Your task to perform on an android device: Show me popular games on the Play Store Image 0: 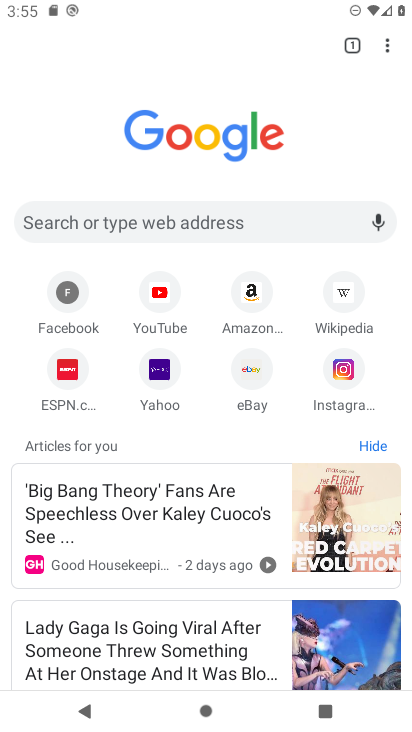
Step 0: press back button
Your task to perform on an android device: Show me popular games on the Play Store Image 1: 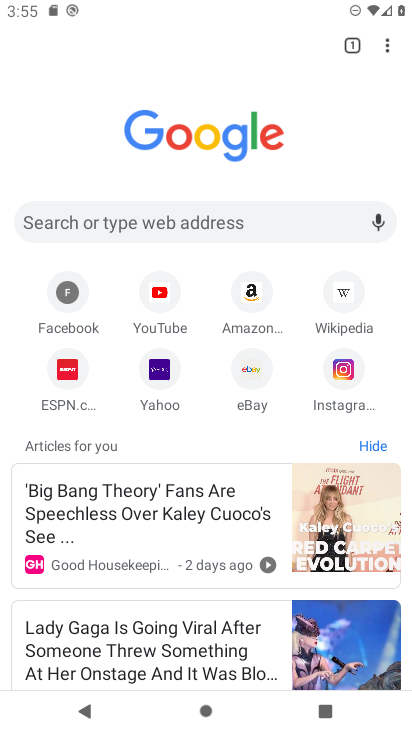
Step 1: press back button
Your task to perform on an android device: Show me popular games on the Play Store Image 2: 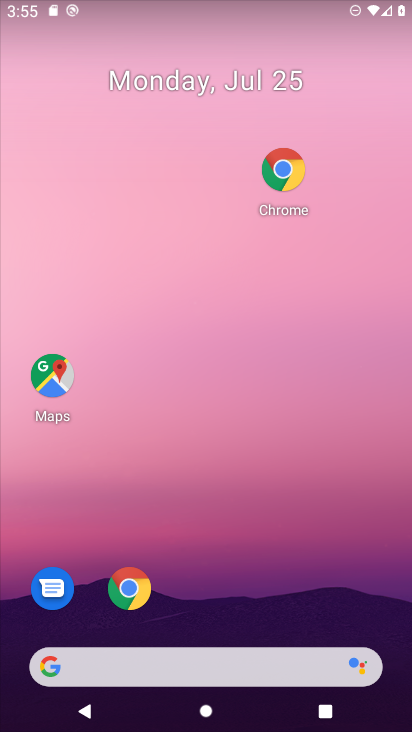
Step 2: drag from (217, 553) to (169, 139)
Your task to perform on an android device: Show me popular games on the Play Store Image 3: 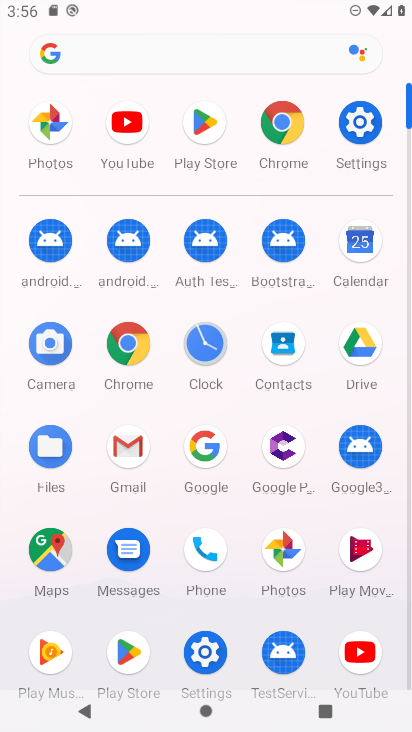
Step 3: click (130, 648)
Your task to perform on an android device: Show me popular games on the Play Store Image 4: 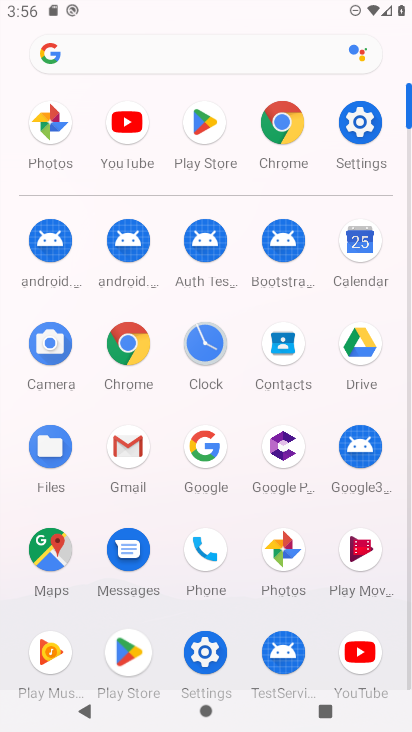
Step 4: click (132, 649)
Your task to perform on an android device: Show me popular games on the Play Store Image 5: 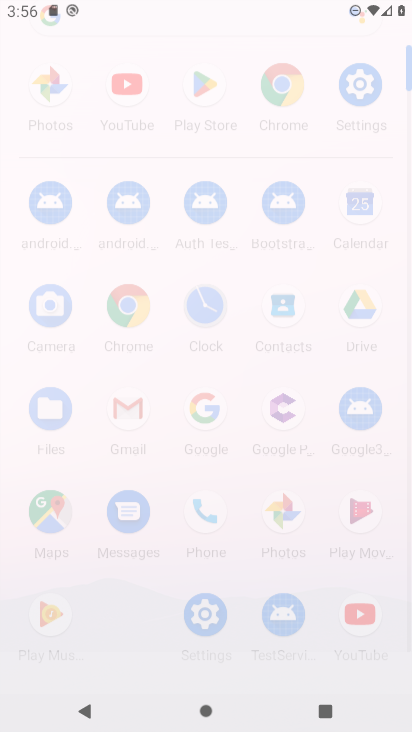
Step 5: click (137, 656)
Your task to perform on an android device: Show me popular games on the Play Store Image 6: 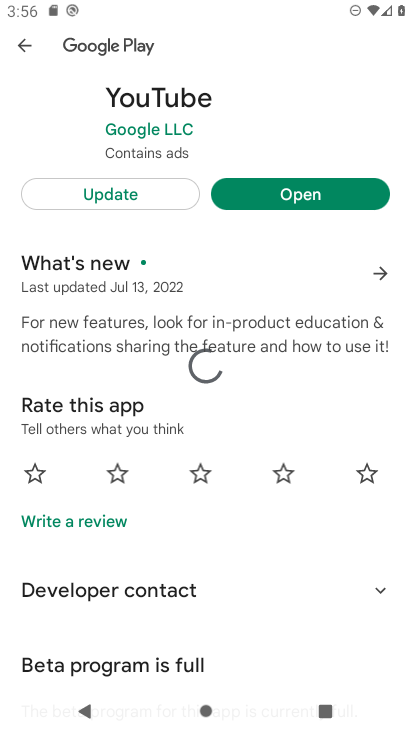
Step 6: click (139, 657)
Your task to perform on an android device: Show me popular games on the Play Store Image 7: 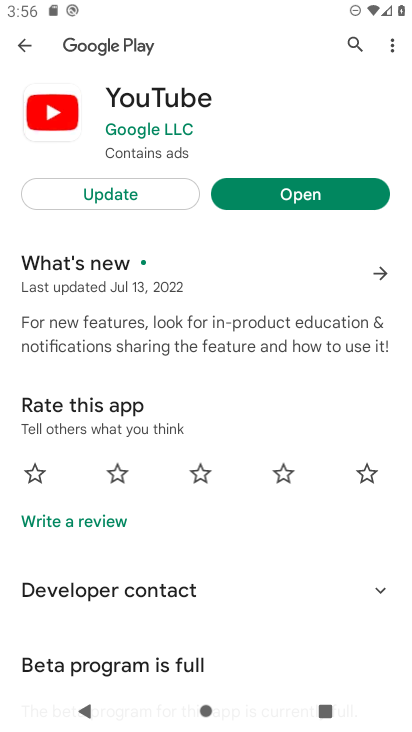
Step 7: click (174, 204)
Your task to perform on an android device: Show me popular games on the Play Store Image 8: 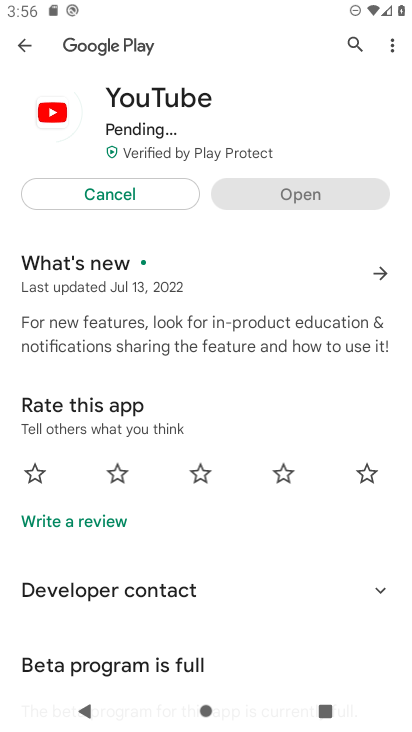
Step 8: click (278, 196)
Your task to perform on an android device: Show me popular games on the Play Store Image 9: 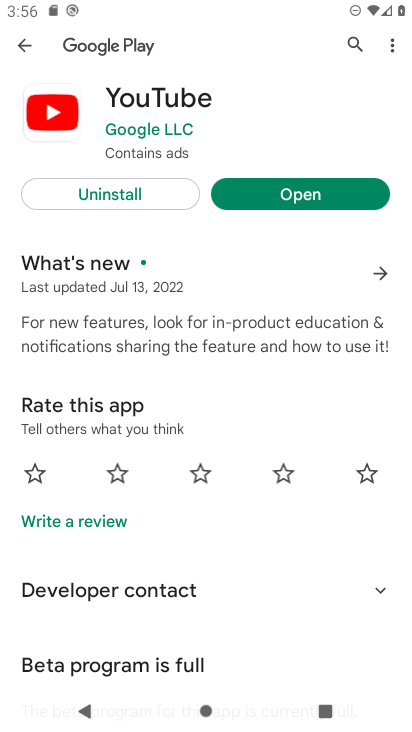
Step 9: press back button
Your task to perform on an android device: Show me popular games on the Play Store Image 10: 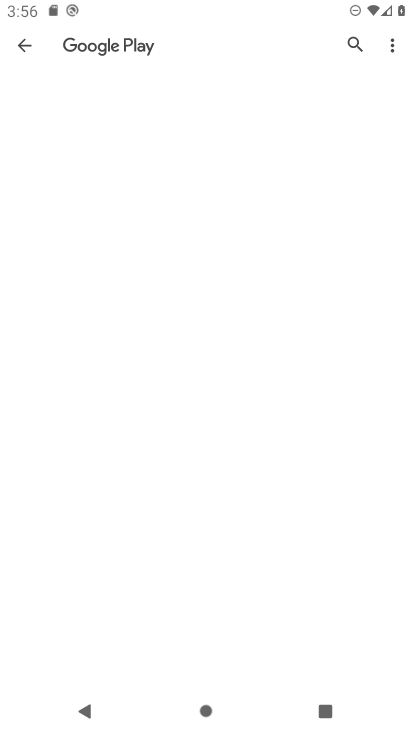
Step 10: press back button
Your task to perform on an android device: Show me popular games on the Play Store Image 11: 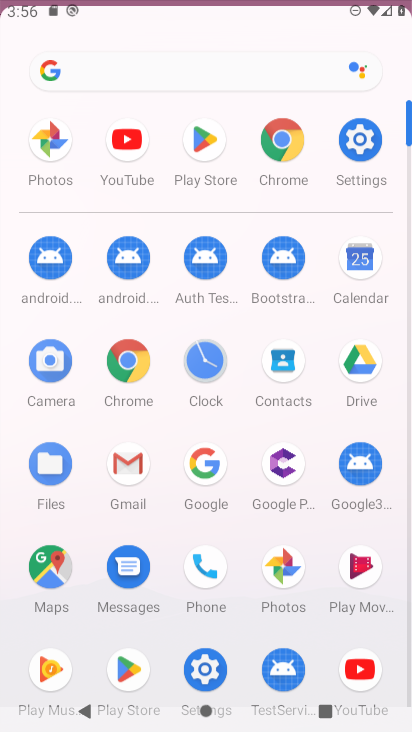
Step 11: press back button
Your task to perform on an android device: Show me popular games on the Play Store Image 12: 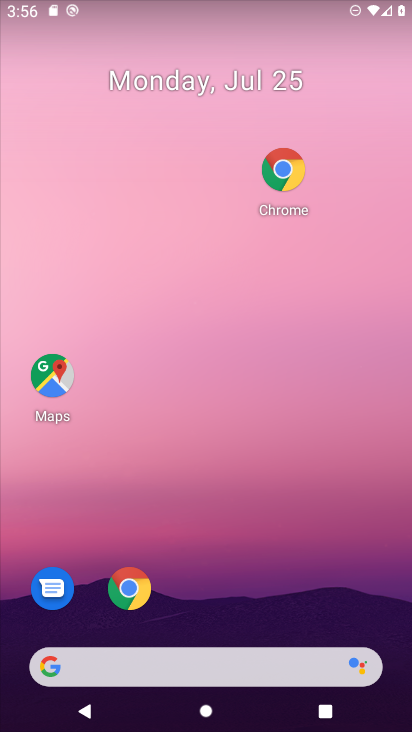
Step 12: drag from (267, 670) to (259, 140)
Your task to perform on an android device: Show me popular games on the Play Store Image 13: 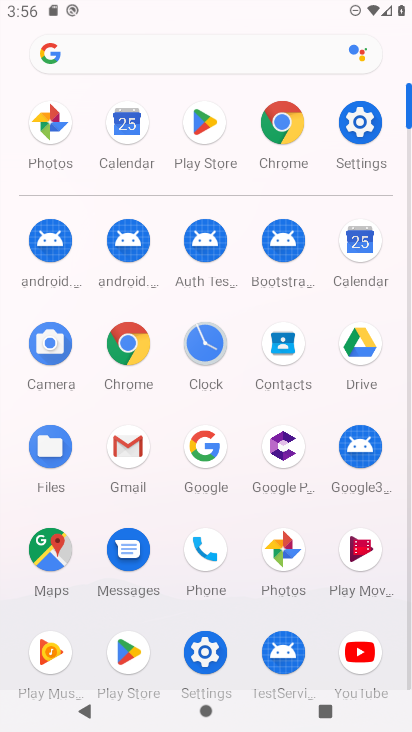
Step 13: click (134, 646)
Your task to perform on an android device: Show me popular games on the Play Store Image 14: 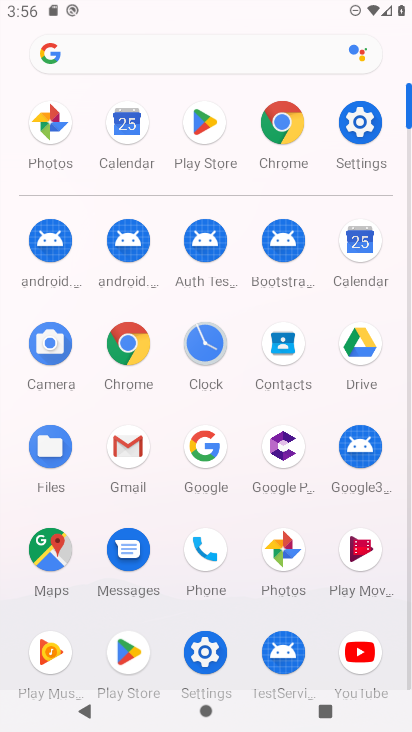
Step 14: click (152, 655)
Your task to perform on an android device: Show me popular games on the Play Store Image 15: 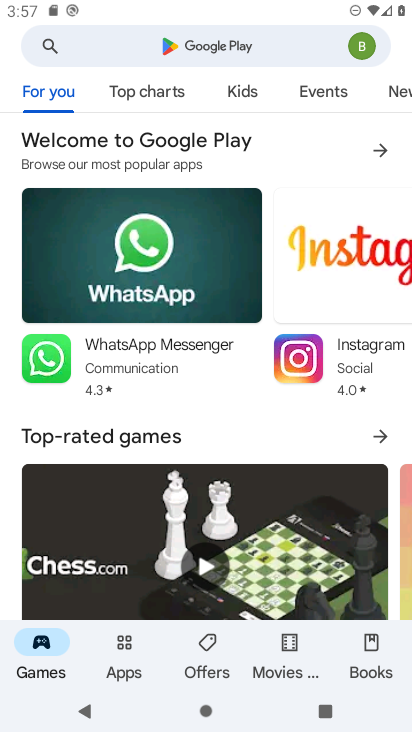
Step 15: click (164, 40)
Your task to perform on an android device: Show me popular games on the Play Store Image 16: 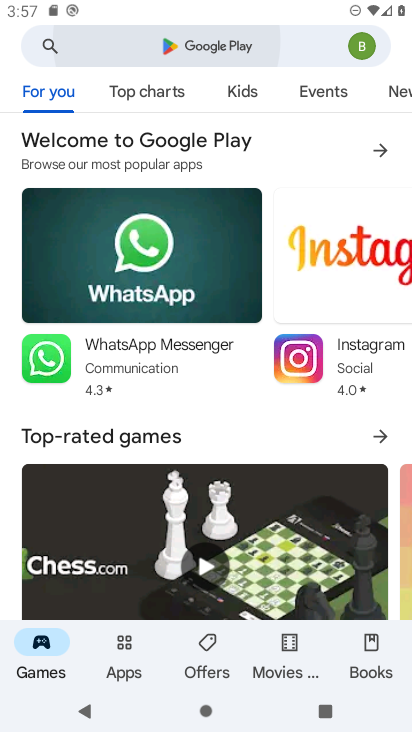
Step 16: click (171, 38)
Your task to perform on an android device: Show me popular games on the Play Store Image 17: 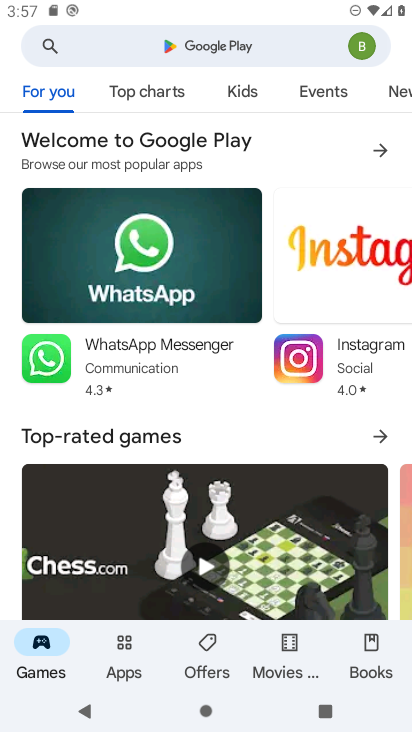
Step 17: click (196, 48)
Your task to perform on an android device: Show me popular games on the Play Store Image 18: 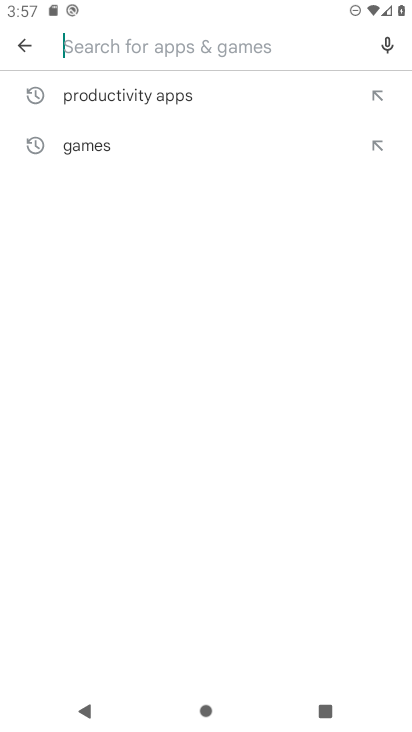
Step 18: click (235, 54)
Your task to perform on an android device: Show me popular games on the Play Store Image 19: 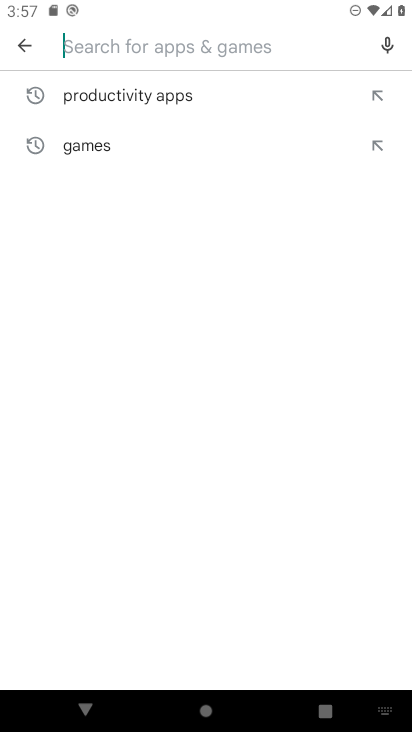
Step 19: type "popular g"
Your task to perform on an android device: Show me popular games on the Play Store Image 20: 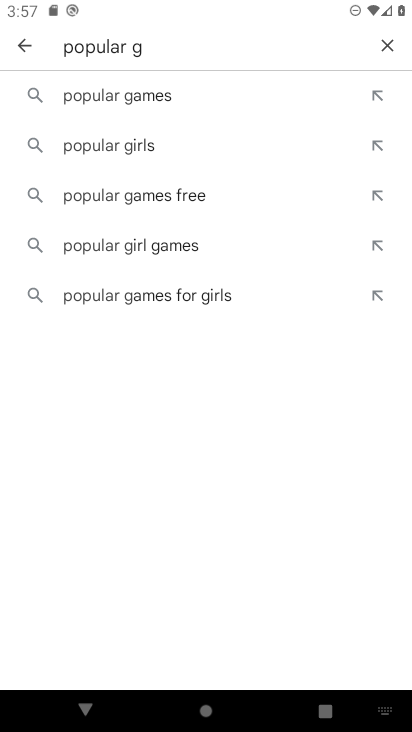
Step 20: click (143, 98)
Your task to perform on an android device: Show me popular games on the Play Store Image 21: 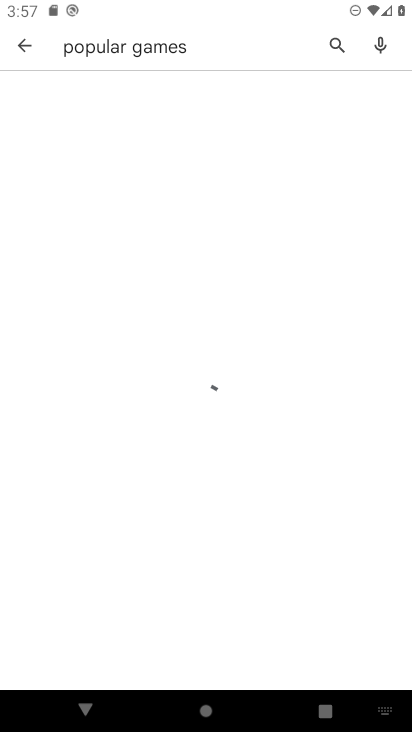
Step 21: click (143, 98)
Your task to perform on an android device: Show me popular games on the Play Store Image 22: 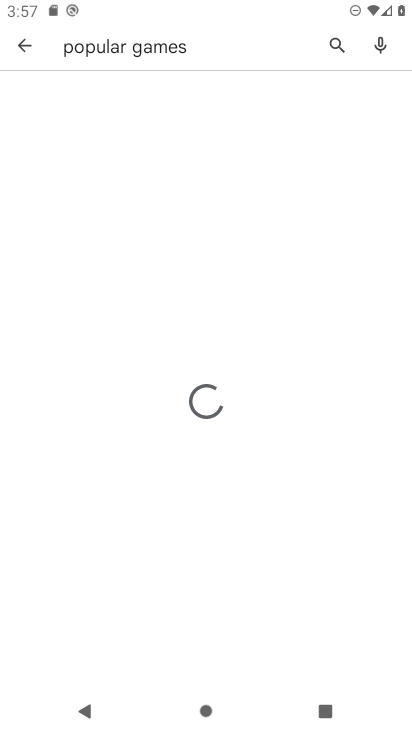
Step 22: click (143, 98)
Your task to perform on an android device: Show me popular games on the Play Store Image 23: 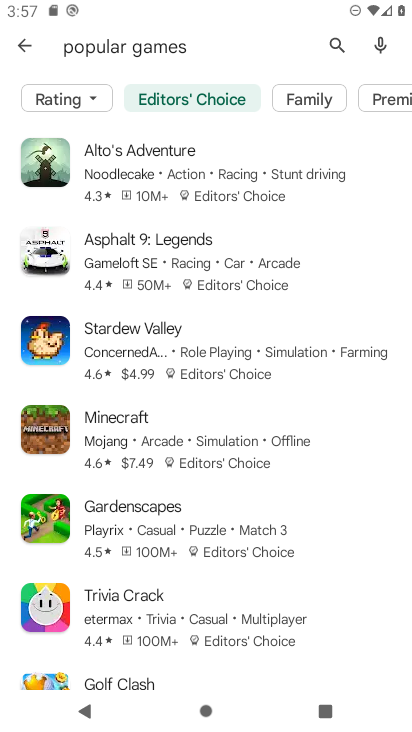
Step 23: task complete